Your task to perform on an android device: What is the news today? Image 0: 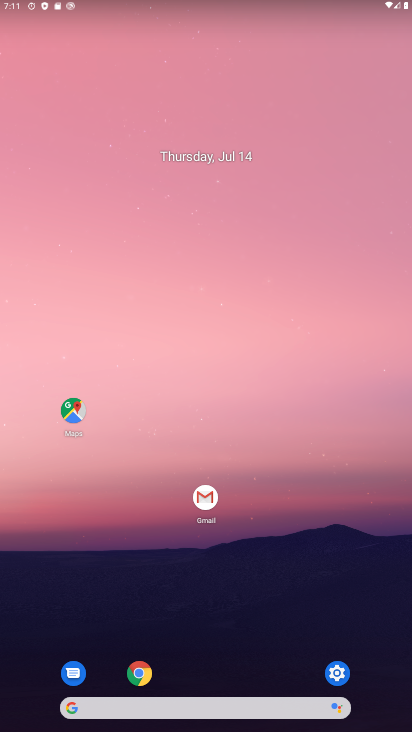
Step 0: click (215, 709)
Your task to perform on an android device: What is the news today? Image 1: 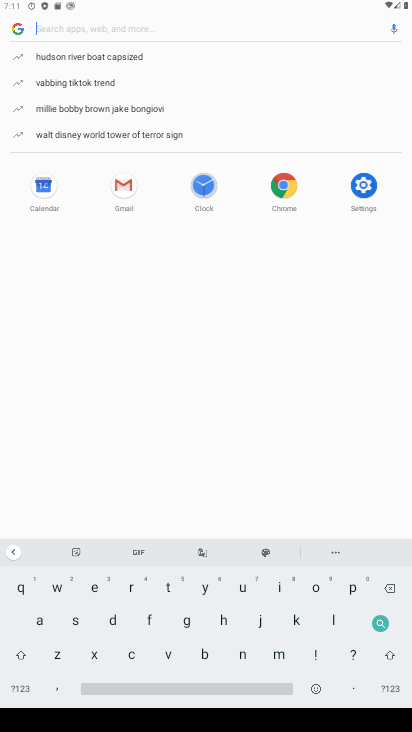
Step 1: click (240, 654)
Your task to perform on an android device: What is the news today? Image 2: 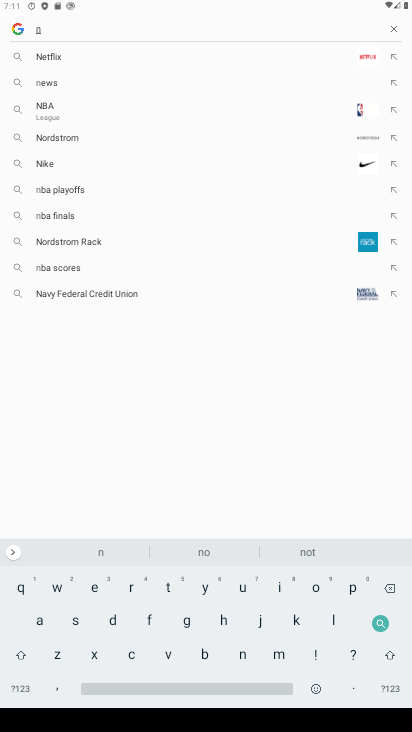
Step 2: click (92, 582)
Your task to perform on an android device: What is the news today? Image 3: 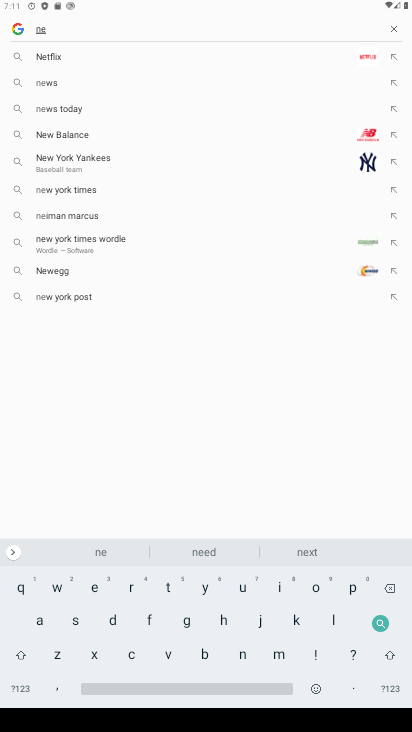
Step 3: click (53, 585)
Your task to perform on an android device: What is the news today? Image 4: 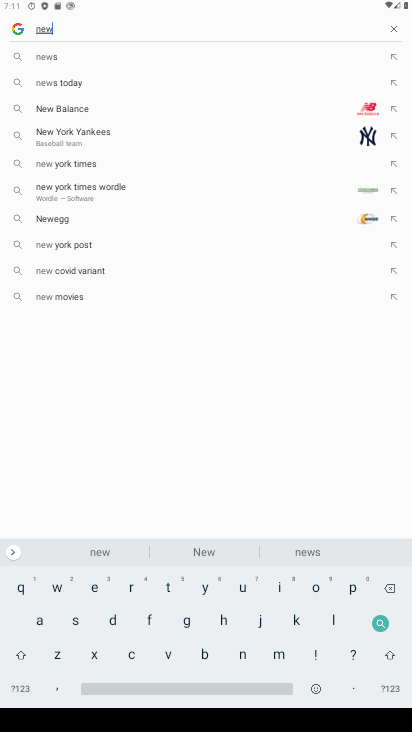
Step 4: click (75, 617)
Your task to perform on an android device: What is the news today? Image 5: 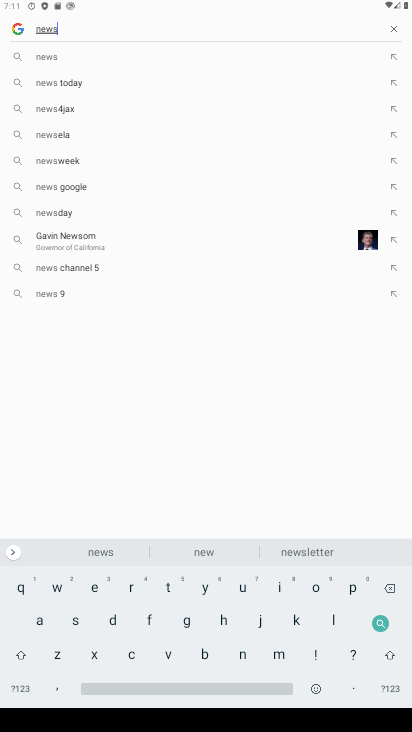
Step 5: click (58, 82)
Your task to perform on an android device: What is the news today? Image 6: 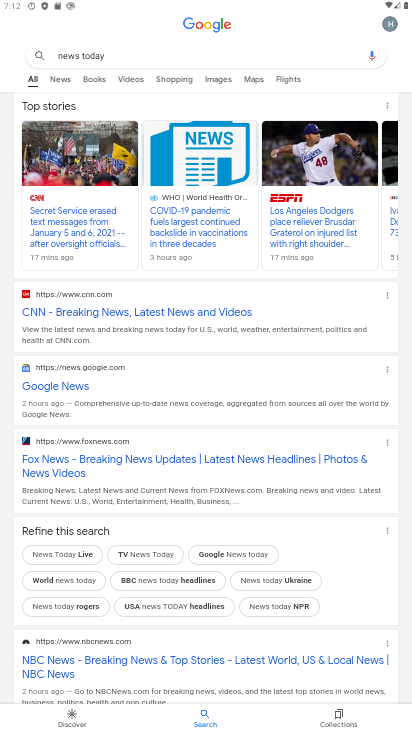
Step 6: task complete